Your task to perform on an android device: Go to battery settings Image 0: 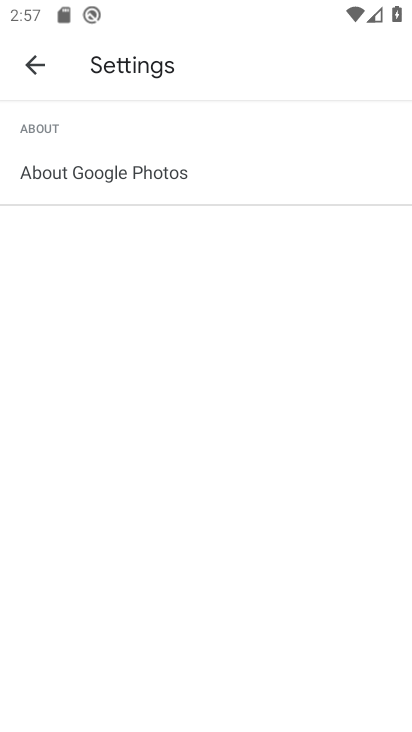
Step 0: click (18, 57)
Your task to perform on an android device: Go to battery settings Image 1: 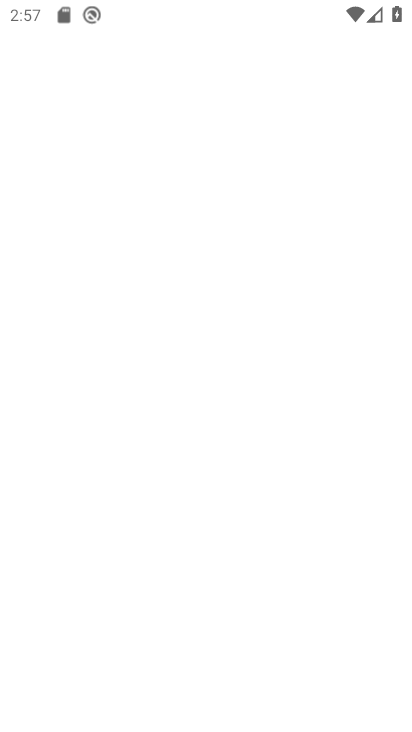
Step 1: press back button
Your task to perform on an android device: Go to battery settings Image 2: 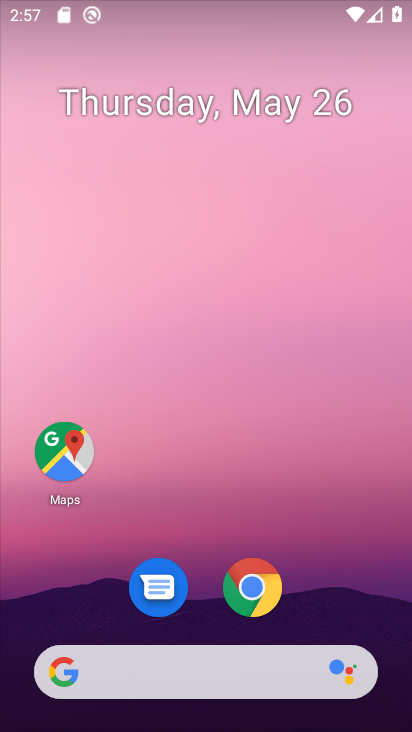
Step 2: drag from (275, 537) to (190, 33)
Your task to perform on an android device: Go to battery settings Image 3: 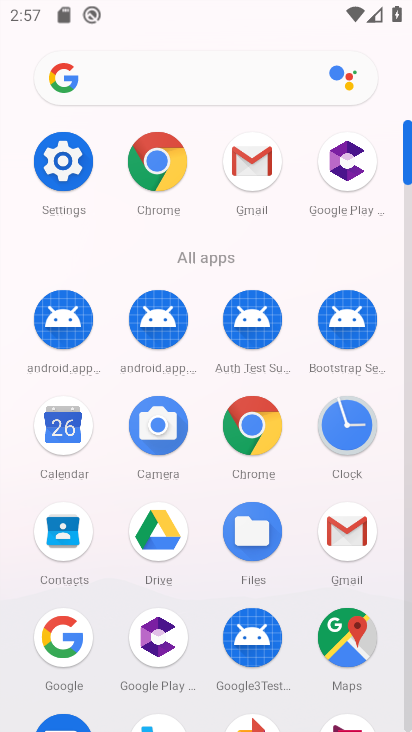
Step 3: click (56, 171)
Your task to perform on an android device: Go to battery settings Image 4: 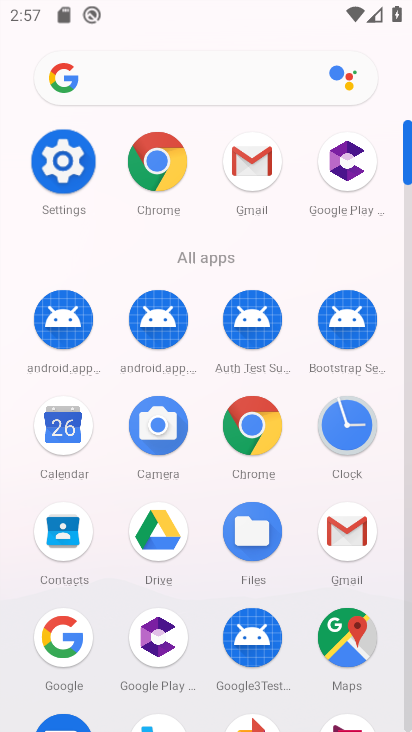
Step 4: click (56, 171)
Your task to perform on an android device: Go to battery settings Image 5: 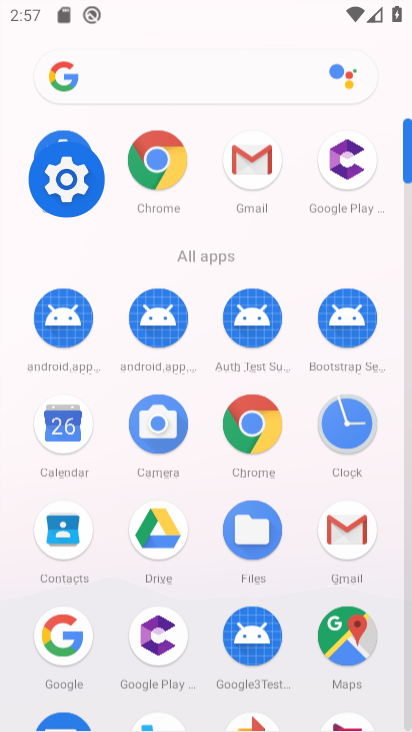
Step 5: click (56, 171)
Your task to perform on an android device: Go to battery settings Image 6: 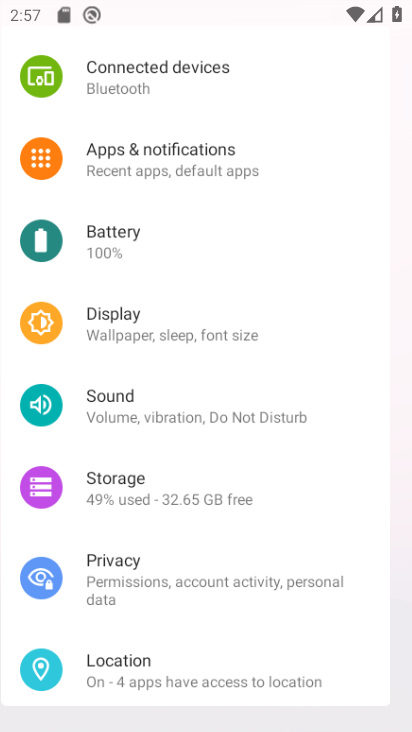
Step 6: click (56, 171)
Your task to perform on an android device: Go to battery settings Image 7: 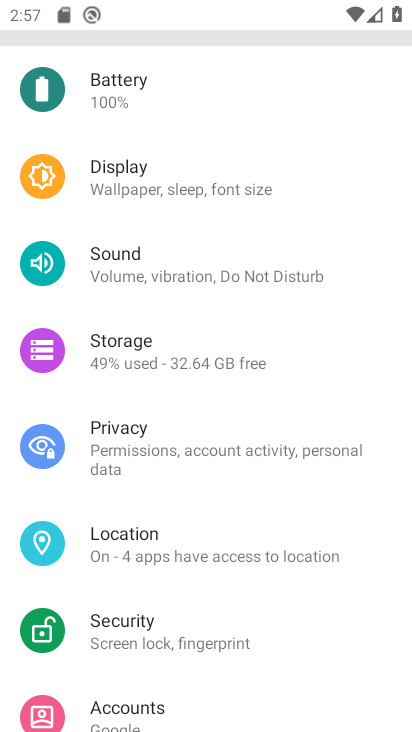
Step 7: click (57, 172)
Your task to perform on an android device: Go to battery settings Image 8: 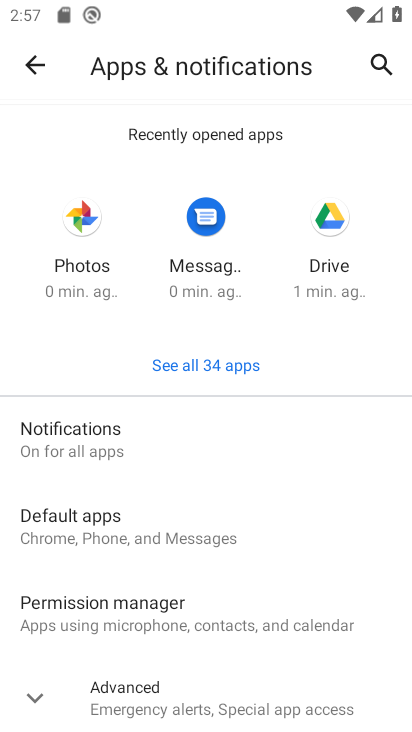
Step 8: click (31, 69)
Your task to perform on an android device: Go to battery settings Image 9: 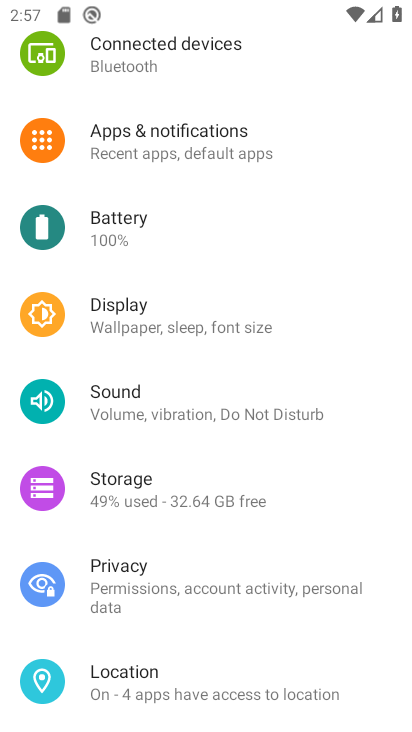
Step 9: drag from (113, 418) to (113, 126)
Your task to perform on an android device: Go to battery settings Image 10: 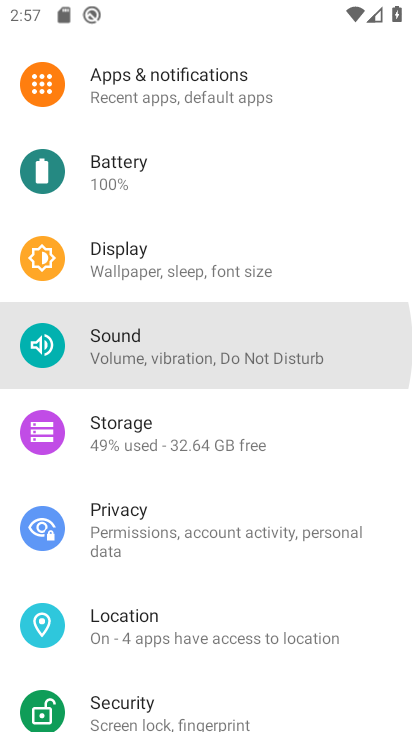
Step 10: drag from (181, 414) to (186, 85)
Your task to perform on an android device: Go to battery settings Image 11: 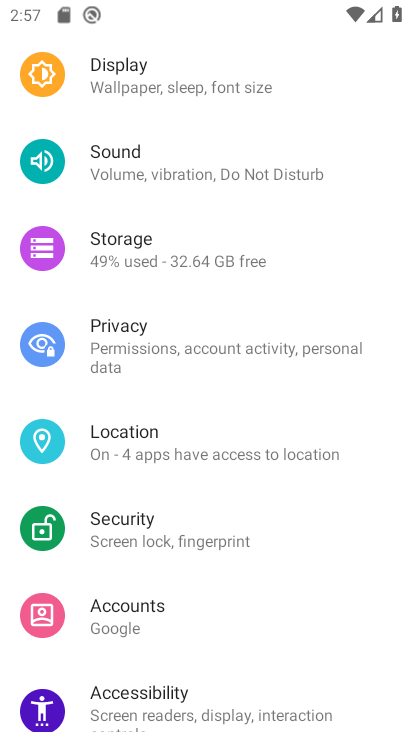
Step 11: drag from (192, 288) to (154, 74)
Your task to perform on an android device: Go to battery settings Image 12: 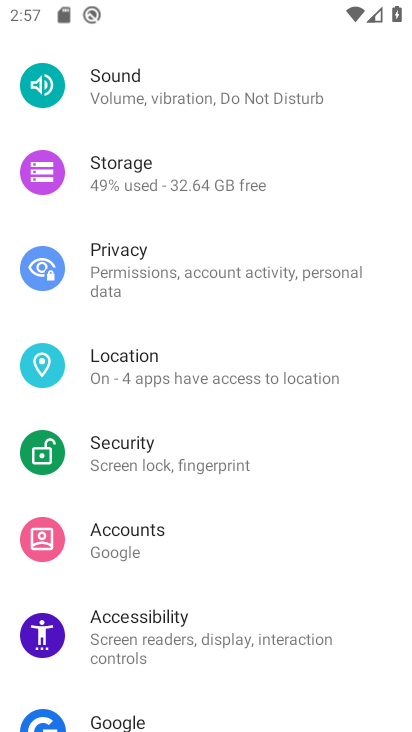
Step 12: drag from (161, 361) to (131, 121)
Your task to perform on an android device: Go to battery settings Image 13: 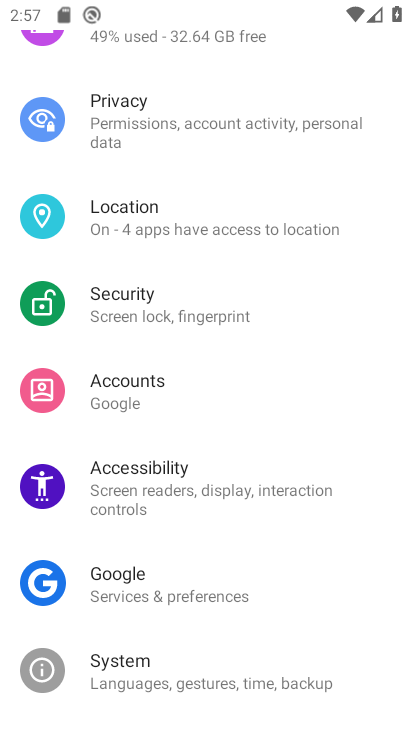
Step 13: drag from (199, 436) to (187, 145)
Your task to perform on an android device: Go to battery settings Image 14: 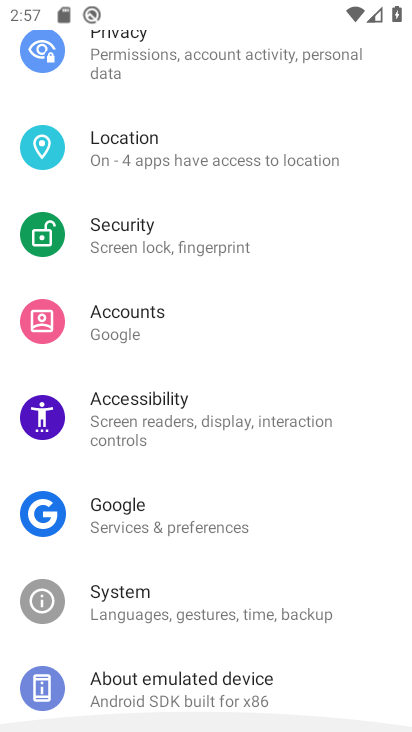
Step 14: drag from (178, 548) to (97, 297)
Your task to perform on an android device: Go to battery settings Image 15: 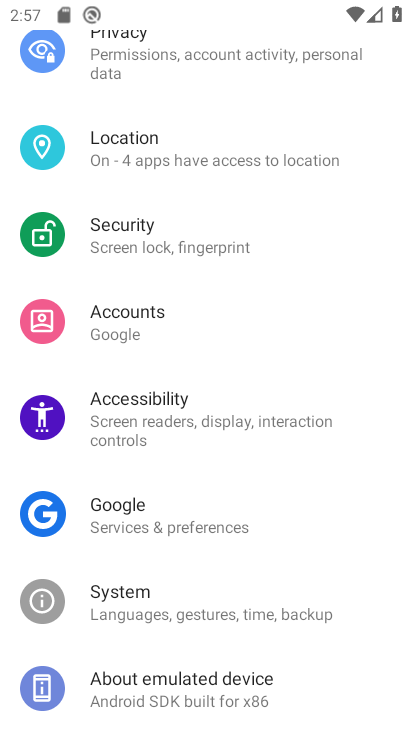
Step 15: drag from (164, 568) to (125, 80)
Your task to perform on an android device: Go to battery settings Image 16: 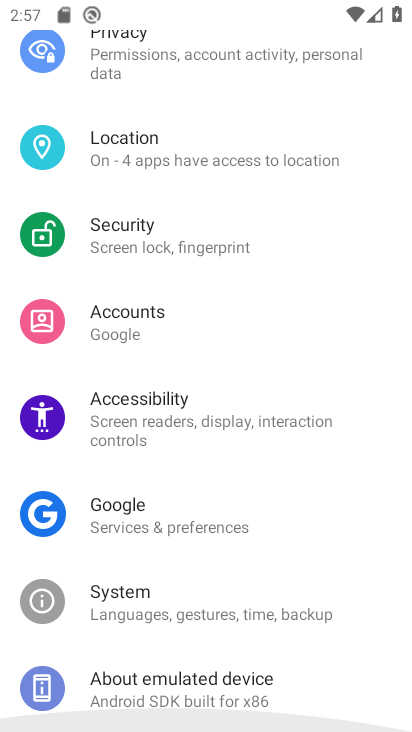
Step 16: drag from (232, 486) to (214, 216)
Your task to perform on an android device: Go to battery settings Image 17: 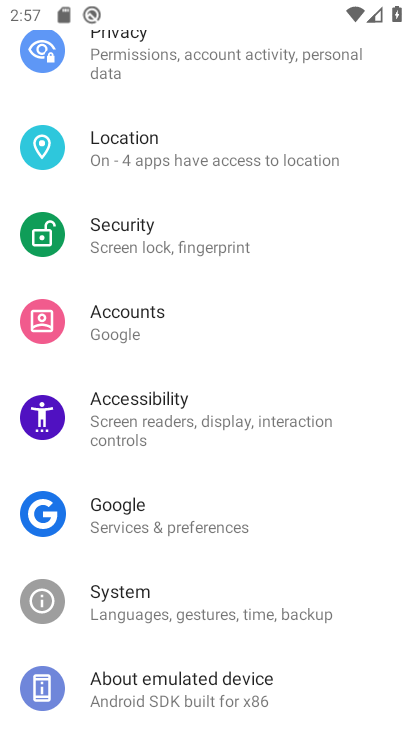
Step 17: drag from (143, 189) to (163, 440)
Your task to perform on an android device: Go to battery settings Image 18: 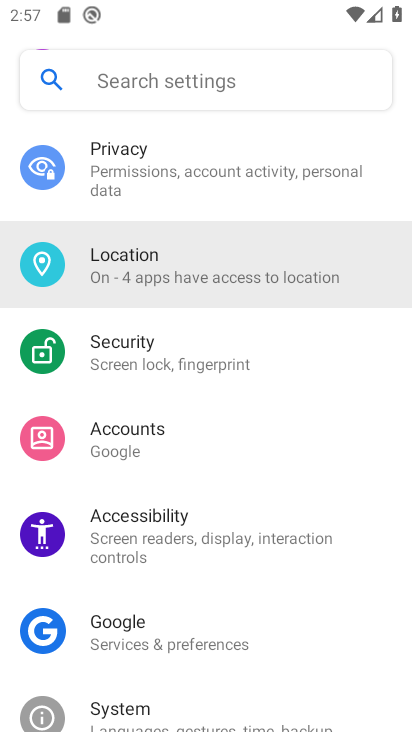
Step 18: drag from (142, 268) to (165, 493)
Your task to perform on an android device: Go to battery settings Image 19: 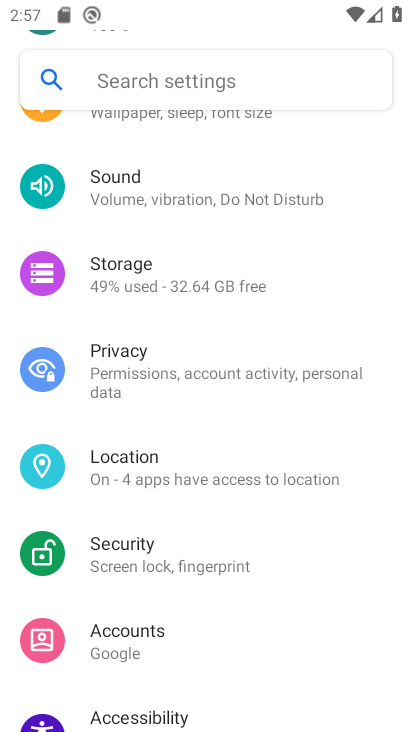
Step 19: drag from (148, 325) to (195, 559)
Your task to perform on an android device: Go to battery settings Image 20: 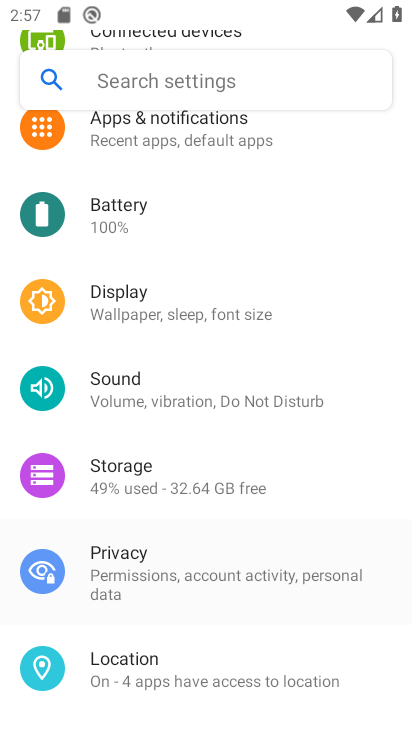
Step 20: drag from (185, 286) to (231, 593)
Your task to perform on an android device: Go to battery settings Image 21: 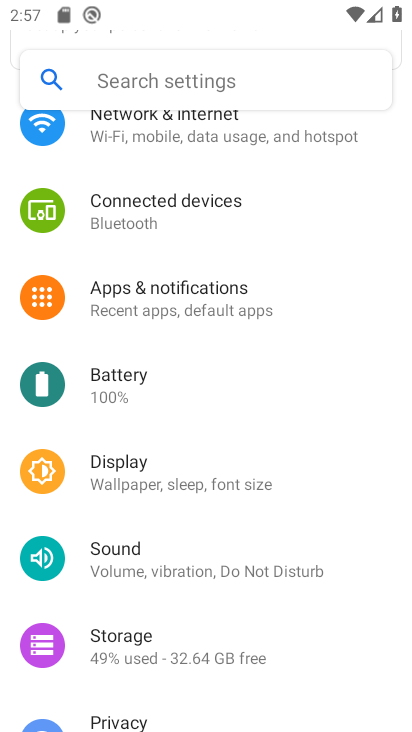
Step 21: click (106, 385)
Your task to perform on an android device: Go to battery settings Image 22: 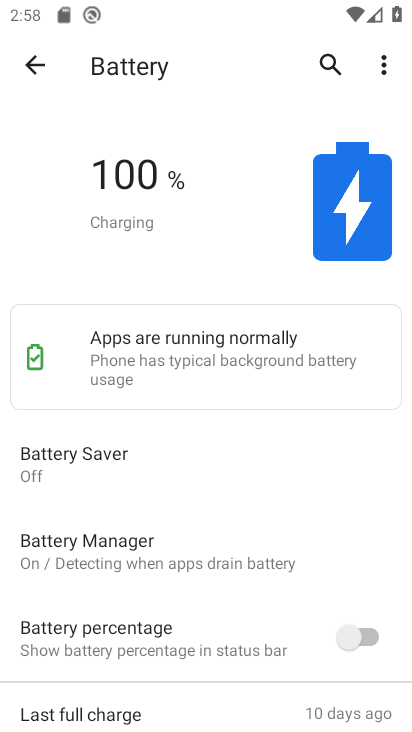
Step 22: task complete